Your task to perform on an android device: toggle notifications settings in the gmail app Image 0: 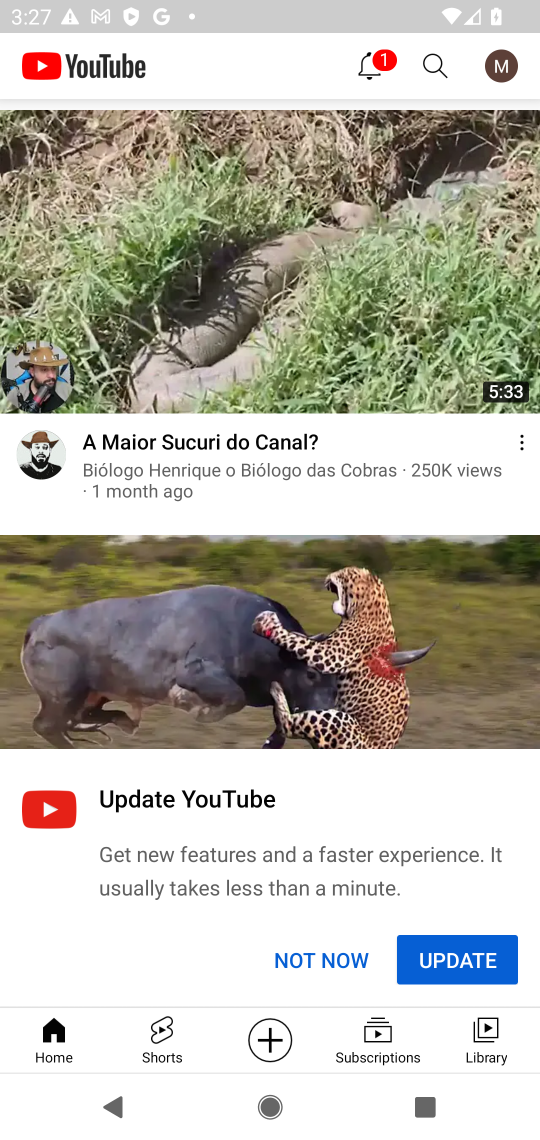
Step 0: press home button
Your task to perform on an android device: toggle notifications settings in the gmail app Image 1: 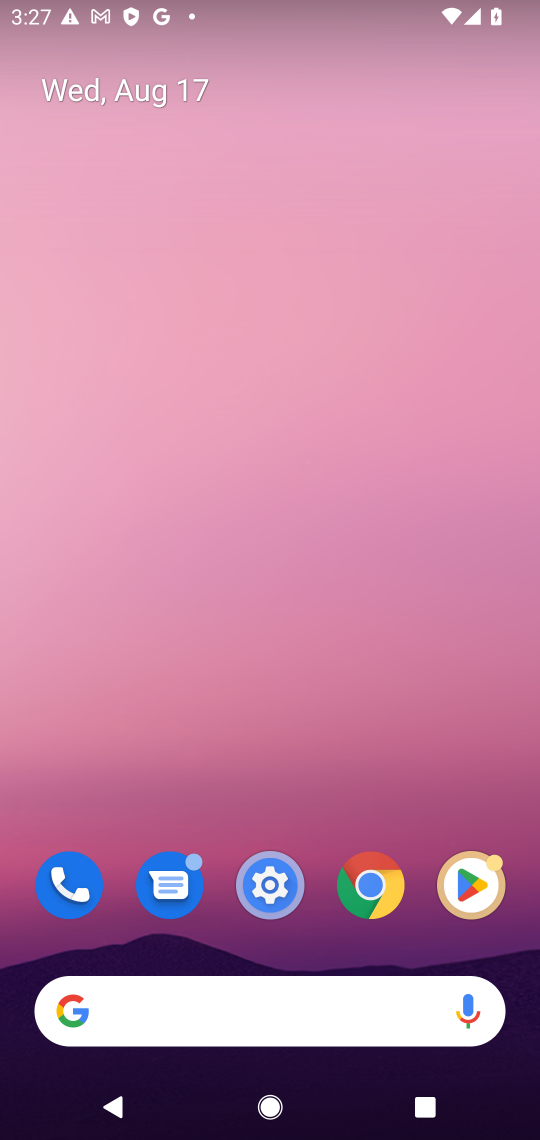
Step 1: drag from (244, 1003) to (386, 135)
Your task to perform on an android device: toggle notifications settings in the gmail app Image 2: 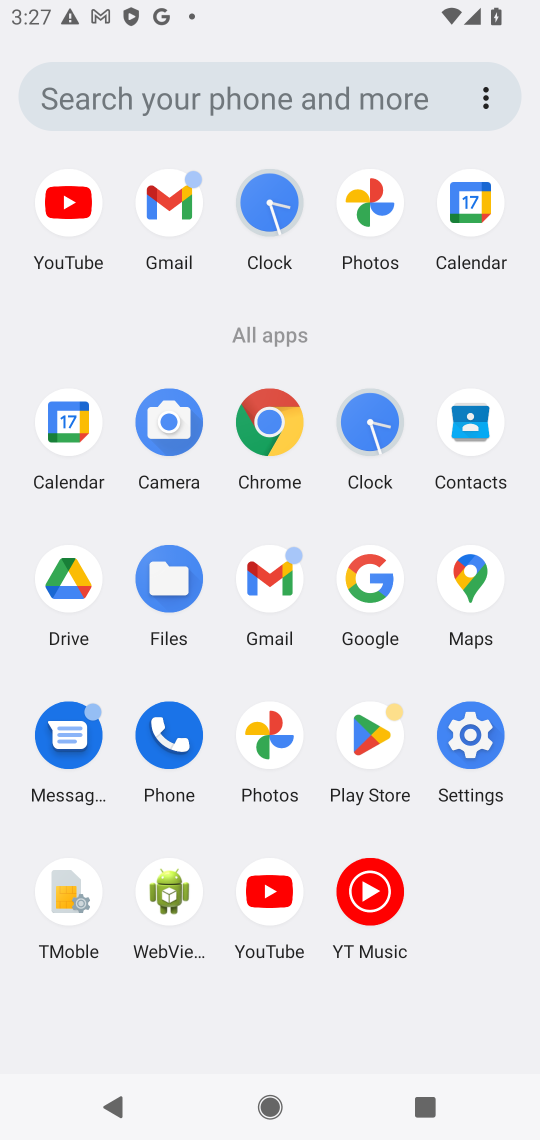
Step 2: click (174, 207)
Your task to perform on an android device: toggle notifications settings in the gmail app Image 3: 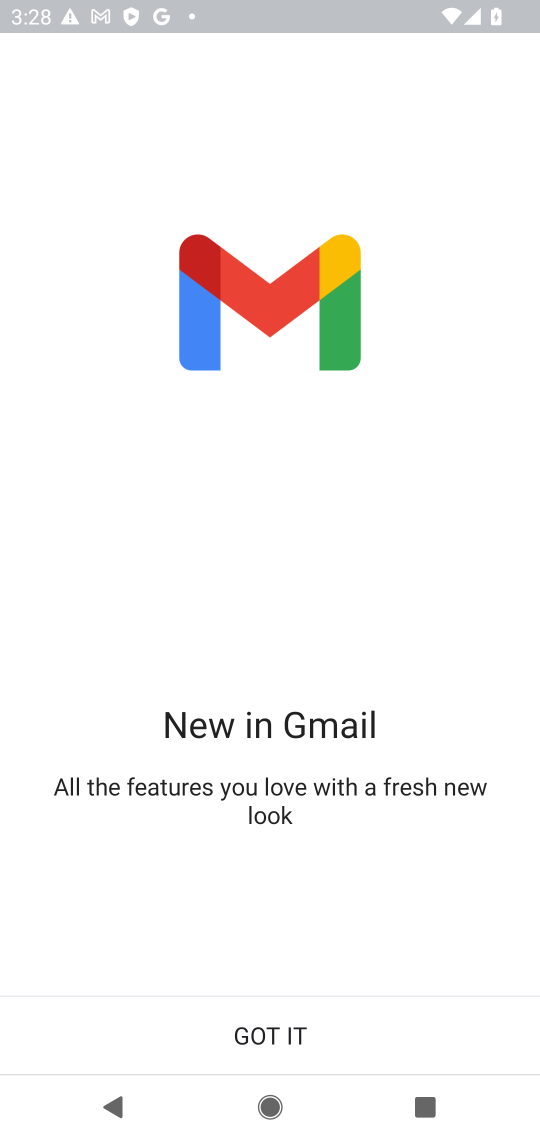
Step 3: click (275, 1046)
Your task to perform on an android device: toggle notifications settings in the gmail app Image 4: 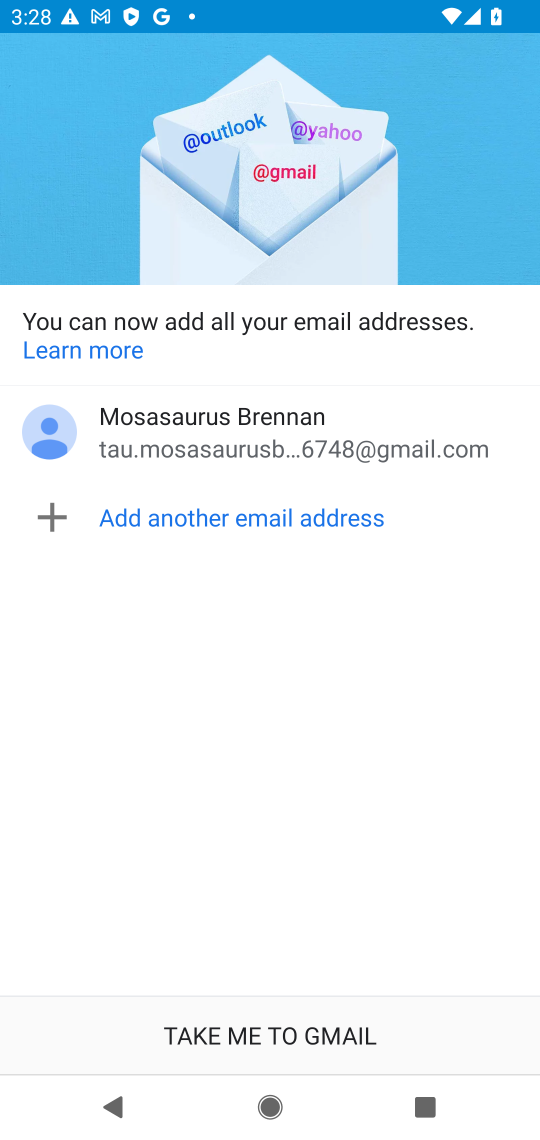
Step 4: click (290, 1038)
Your task to perform on an android device: toggle notifications settings in the gmail app Image 5: 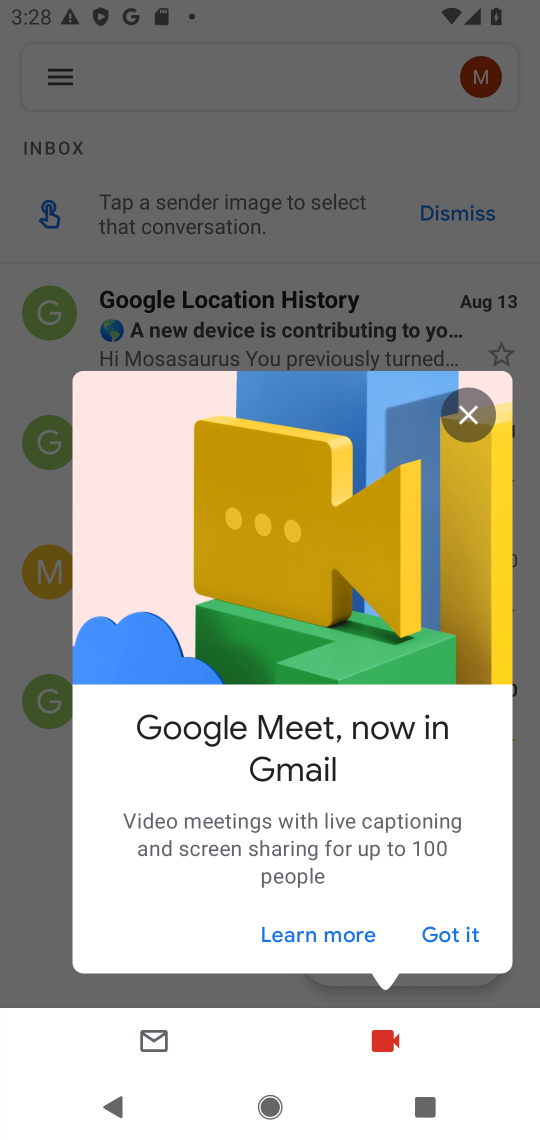
Step 5: click (441, 945)
Your task to perform on an android device: toggle notifications settings in the gmail app Image 6: 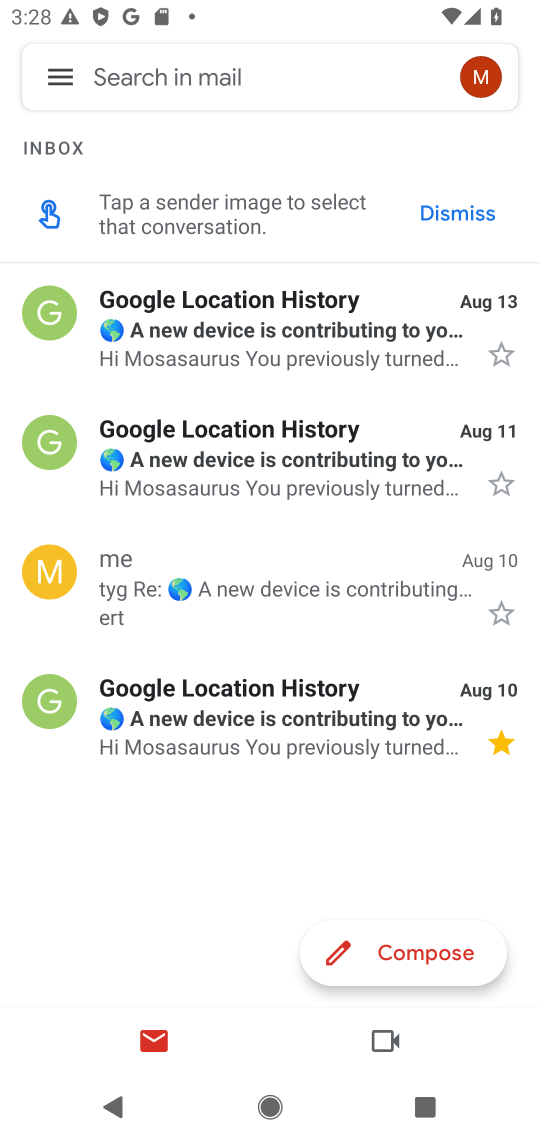
Step 6: click (65, 69)
Your task to perform on an android device: toggle notifications settings in the gmail app Image 7: 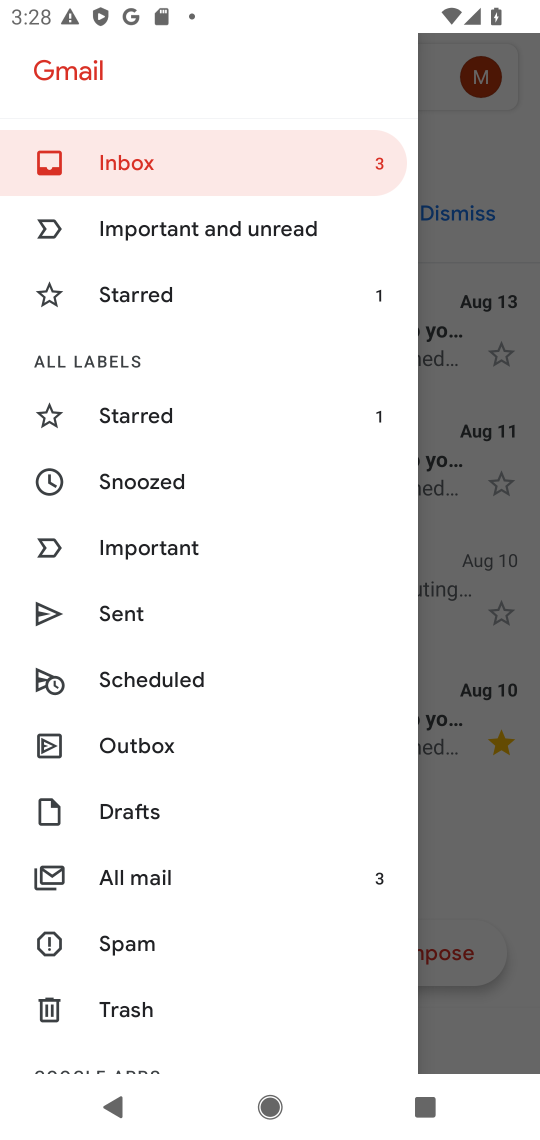
Step 7: drag from (158, 975) to (252, 809)
Your task to perform on an android device: toggle notifications settings in the gmail app Image 8: 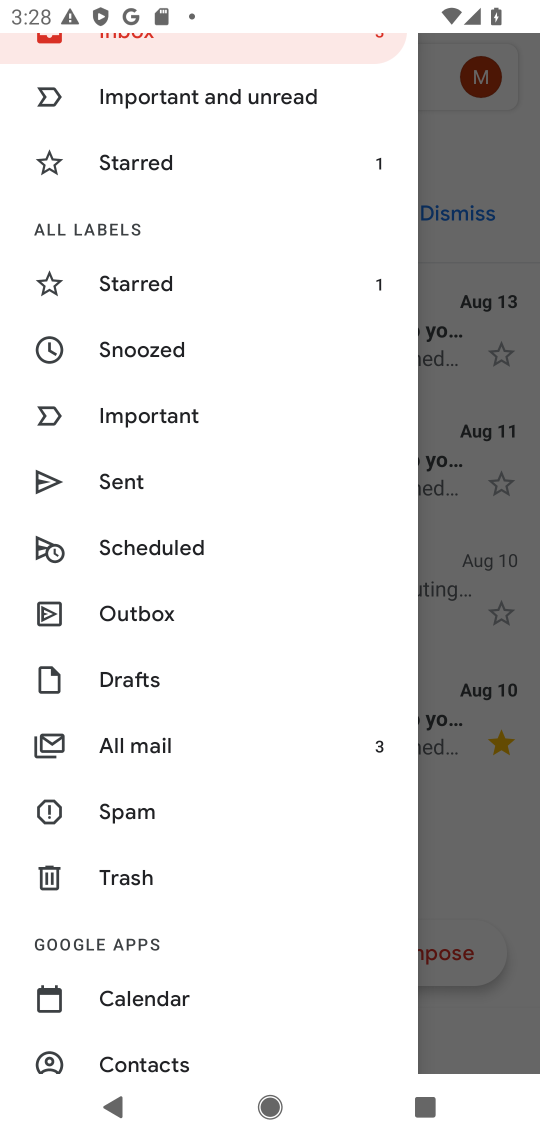
Step 8: drag from (162, 1037) to (201, 784)
Your task to perform on an android device: toggle notifications settings in the gmail app Image 9: 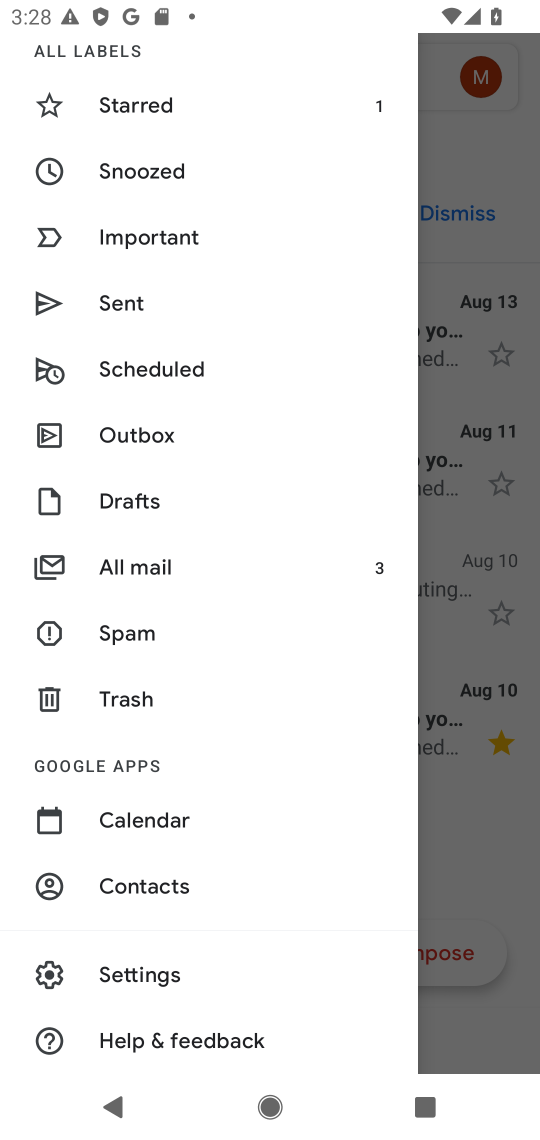
Step 9: click (162, 978)
Your task to perform on an android device: toggle notifications settings in the gmail app Image 10: 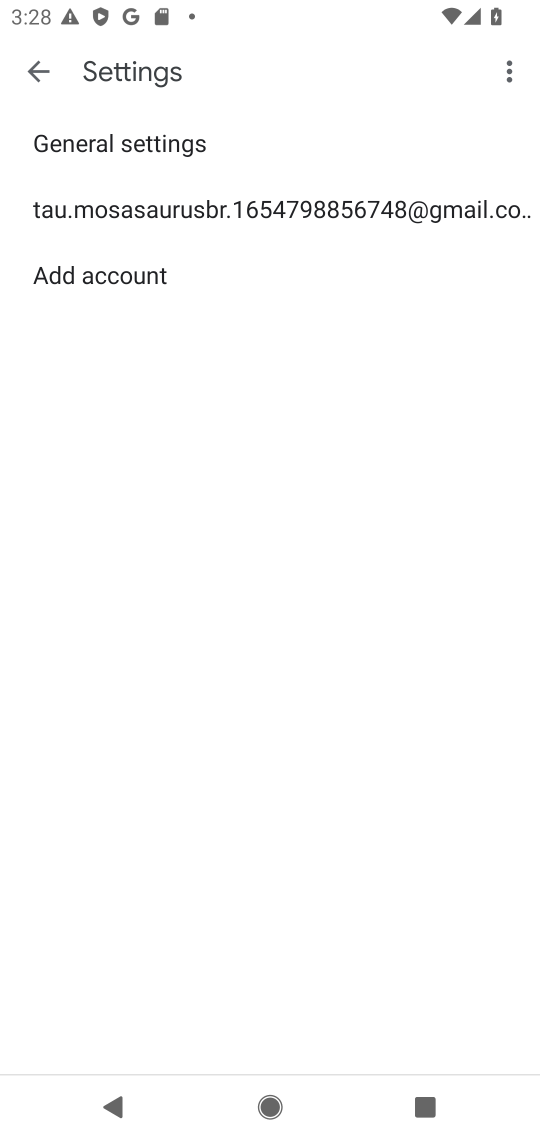
Step 10: click (159, 154)
Your task to perform on an android device: toggle notifications settings in the gmail app Image 11: 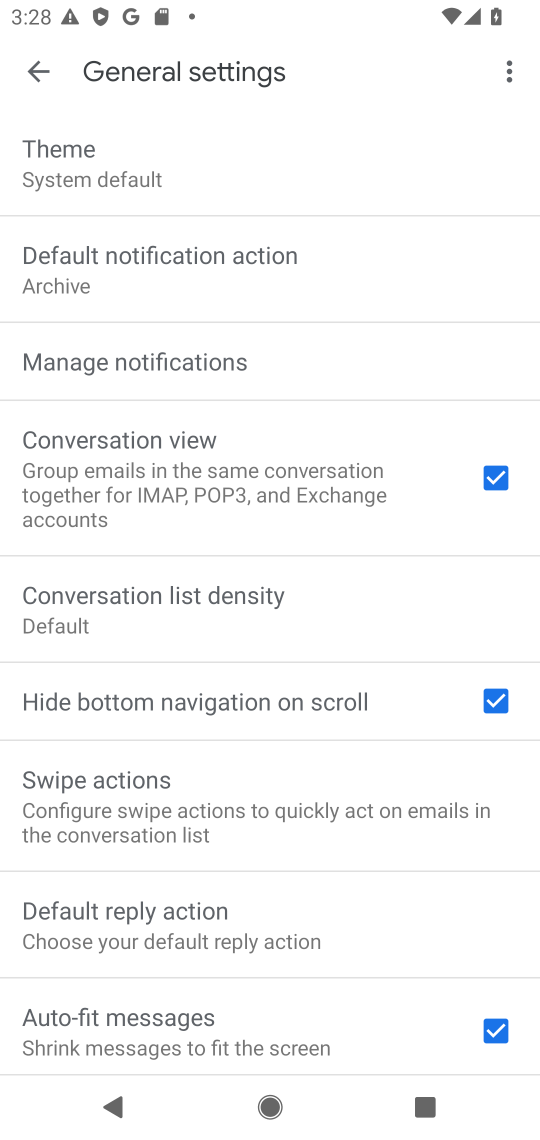
Step 11: click (204, 357)
Your task to perform on an android device: toggle notifications settings in the gmail app Image 12: 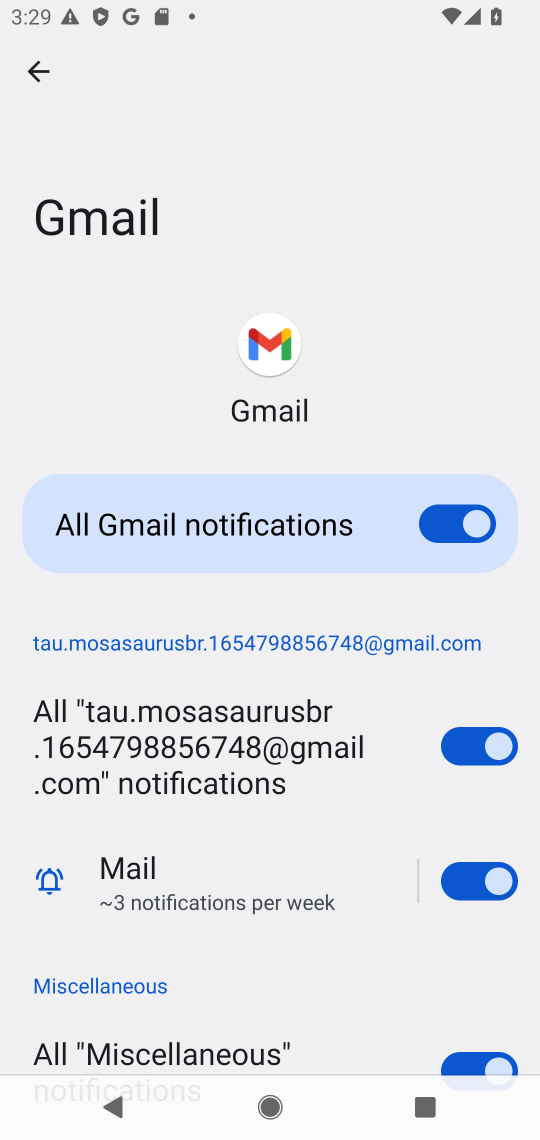
Step 12: click (449, 538)
Your task to perform on an android device: toggle notifications settings in the gmail app Image 13: 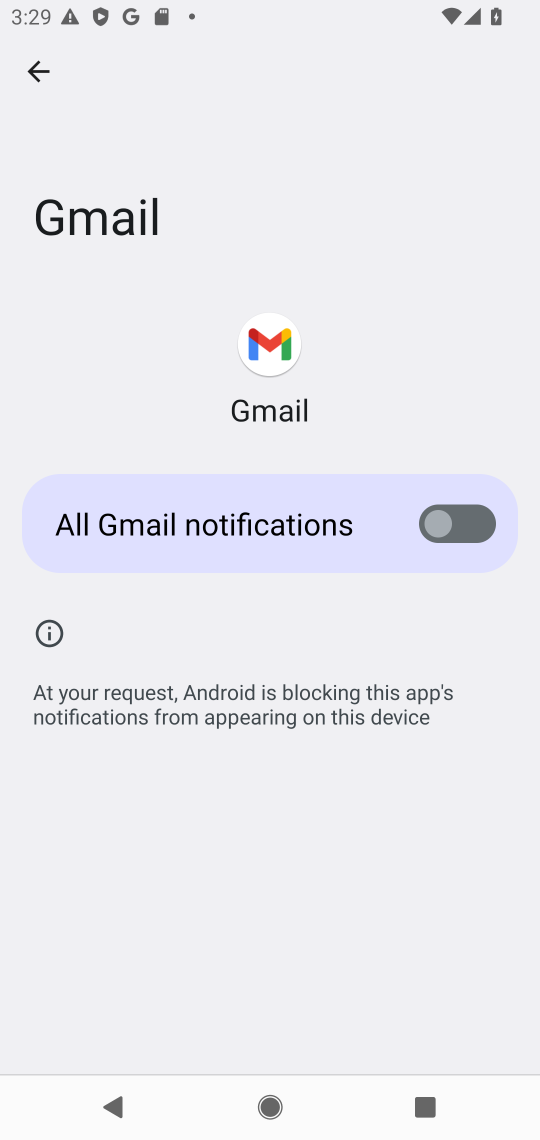
Step 13: task complete